Your task to perform on an android device: turn on improve location accuracy Image 0: 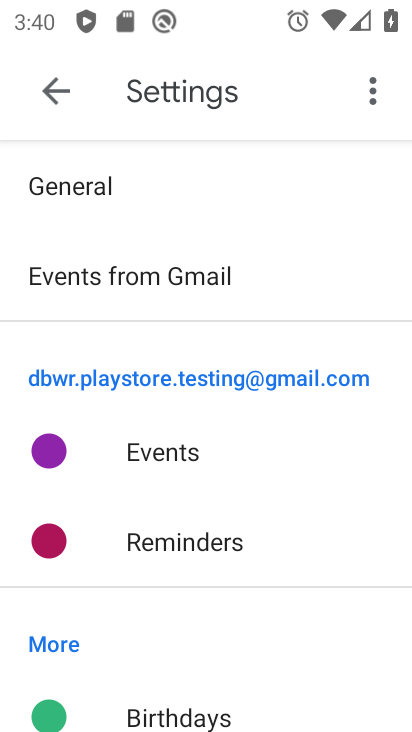
Step 0: press home button
Your task to perform on an android device: turn on improve location accuracy Image 1: 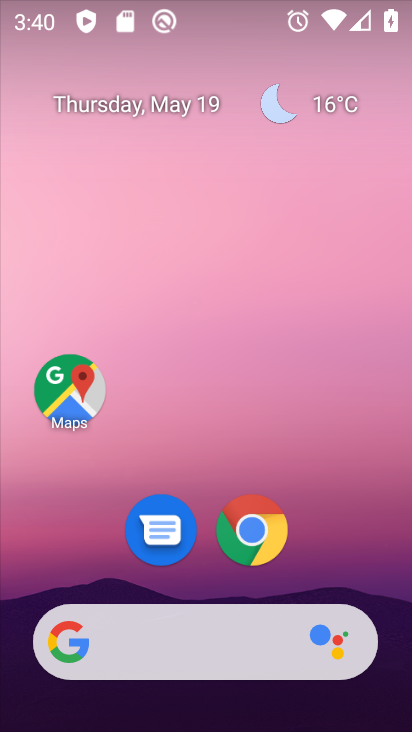
Step 1: drag from (349, 562) to (349, 185)
Your task to perform on an android device: turn on improve location accuracy Image 2: 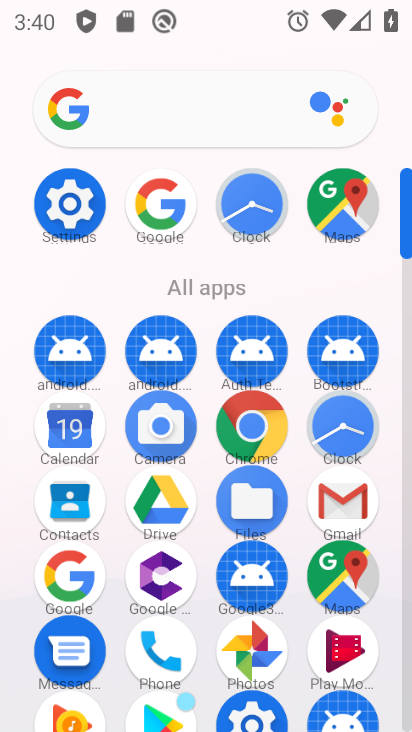
Step 2: click (64, 212)
Your task to perform on an android device: turn on improve location accuracy Image 3: 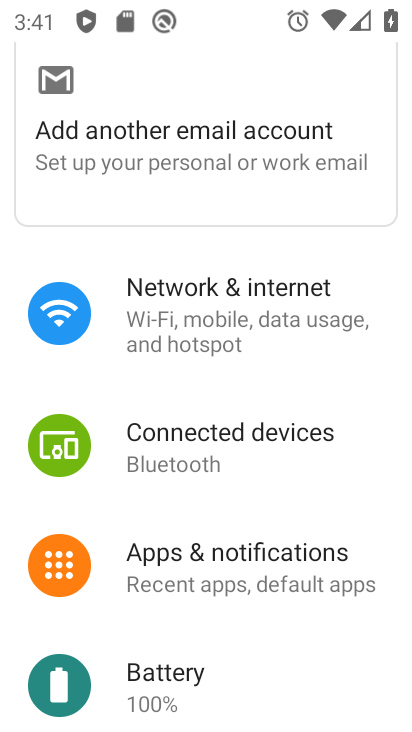
Step 3: drag from (140, 575) to (150, 281)
Your task to perform on an android device: turn on improve location accuracy Image 4: 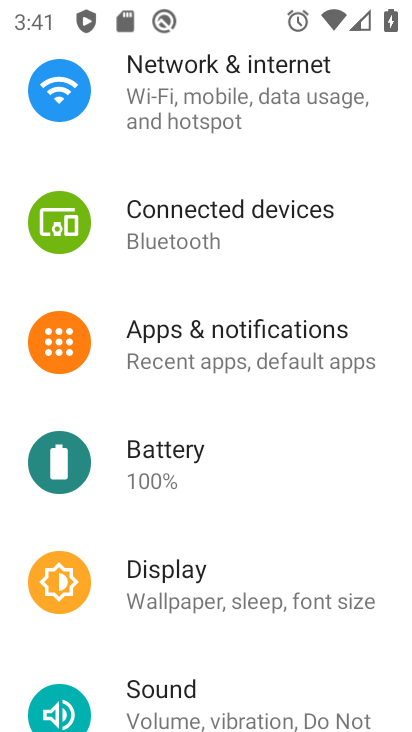
Step 4: drag from (196, 635) to (226, 226)
Your task to perform on an android device: turn on improve location accuracy Image 5: 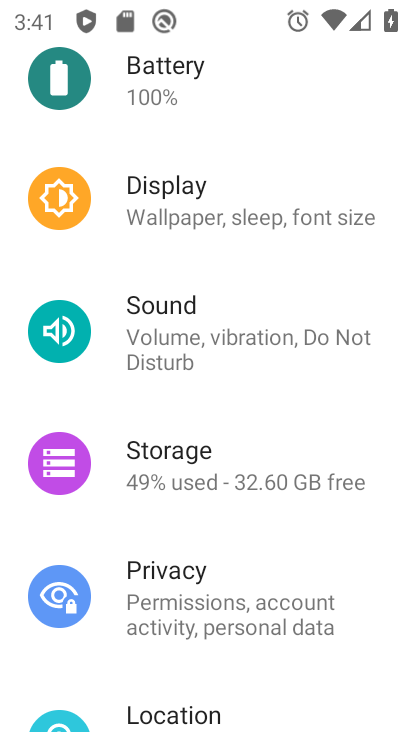
Step 5: drag from (197, 647) to (182, 405)
Your task to perform on an android device: turn on improve location accuracy Image 6: 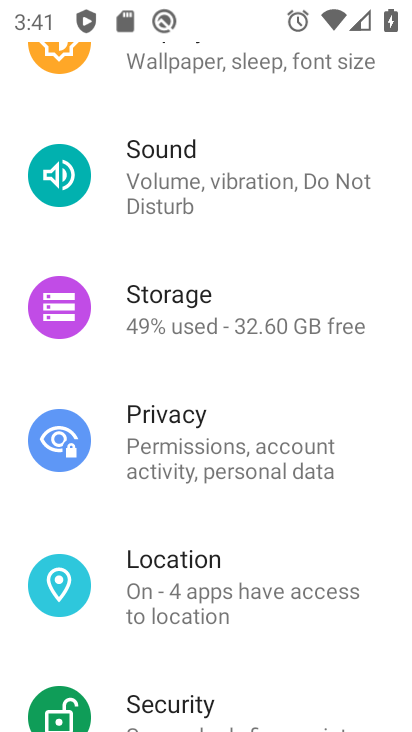
Step 6: click (181, 579)
Your task to perform on an android device: turn on improve location accuracy Image 7: 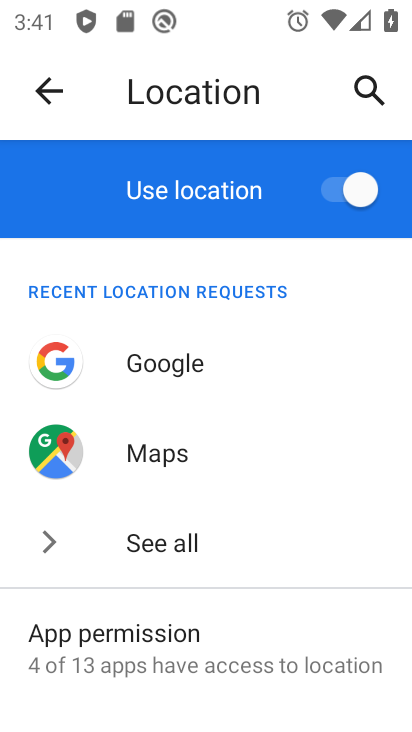
Step 7: drag from (154, 520) to (155, 309)
Your task to perform on an android device: turn on improve location accuracy Image 8: 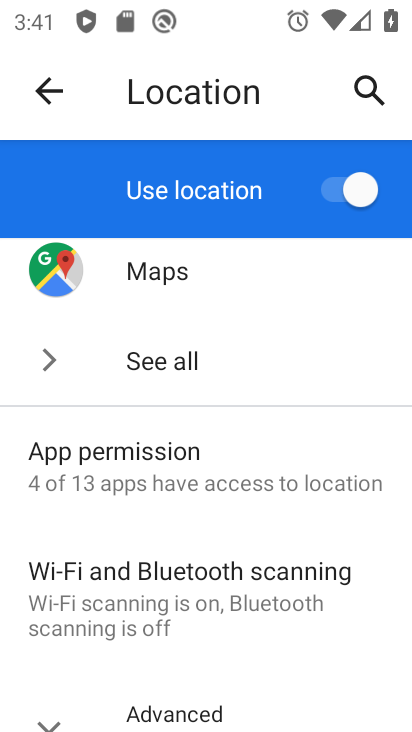
Step 8: drag from (124, 661) to (149, 373)
Your task to perform on an android device: turn on improve location accuracy Image 9: 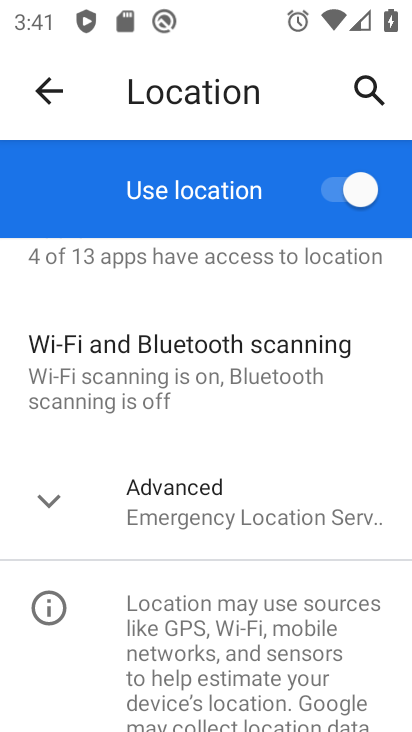
Step 9: click (53, 506)
Your task to perform on an android device: turn on improve location accuracy Image 10: 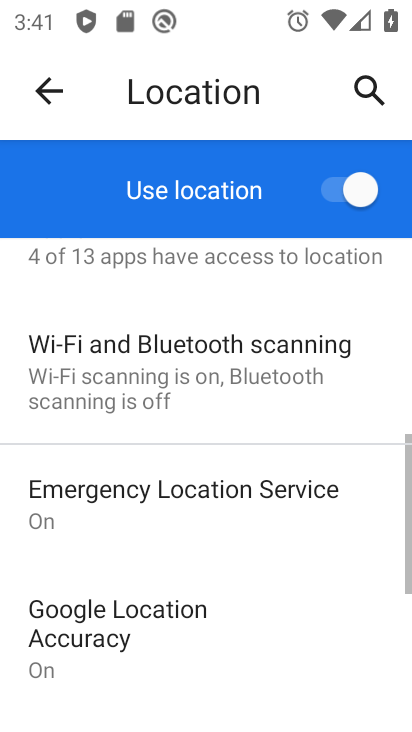
Step 10: drag from (237, 660) to (238, 550)
Your task to perform on an android device: turn on improve location accuracy Image 11: 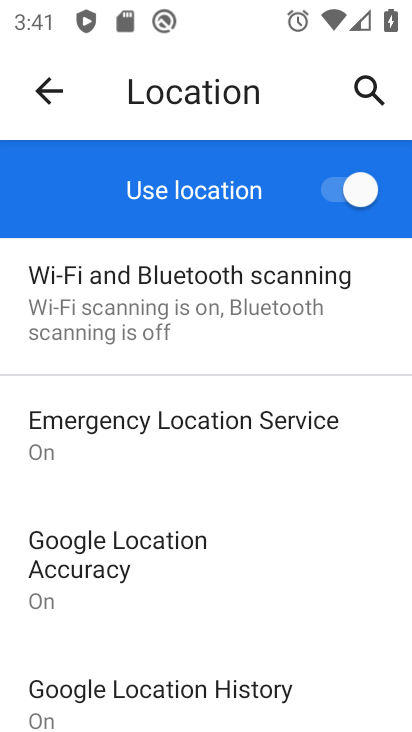
Step 11: click (214, 549)
Your task to perform on an android device: turn on improve location accuracy Image 12: 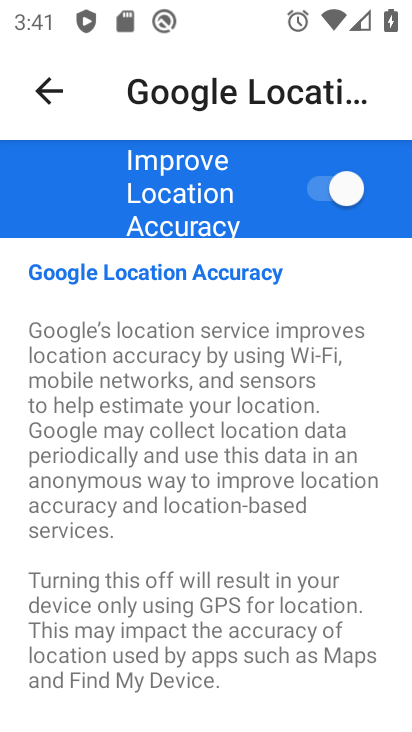
Step 12: task complete